Your task to perform on an android device: Open the Play Movies app and select the watchlist tab. Image 0: 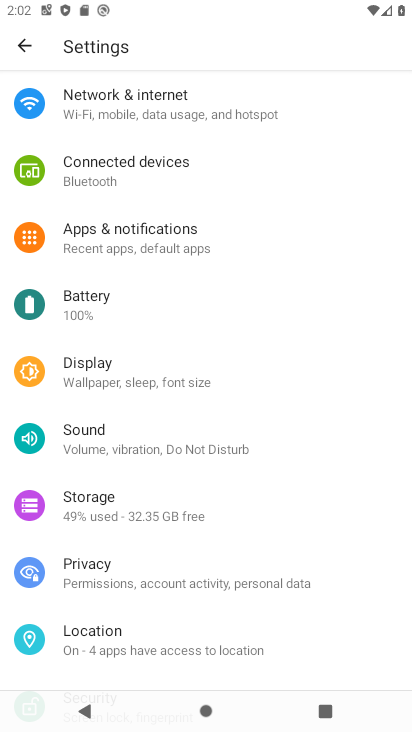
Step 0: press home button
Your task to perform on an android device: Open the Play Movies app and select the watchlist tab. Image 1: 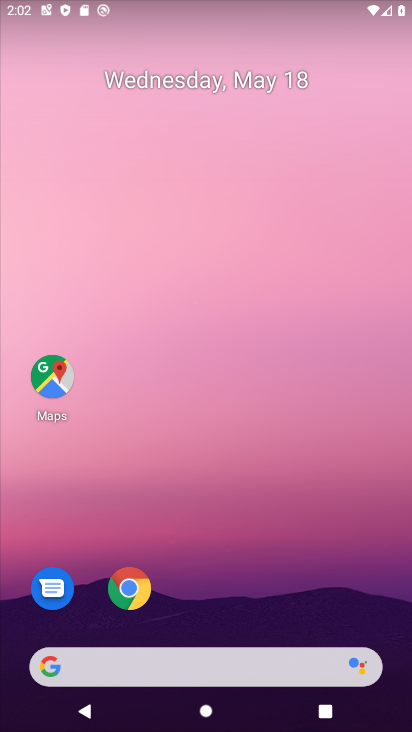
Step 1: drag from (296, 590) to (355, 251)
Your task to perform on an android device: Open the Play Movies app and select the watchlist tab. Image 2: 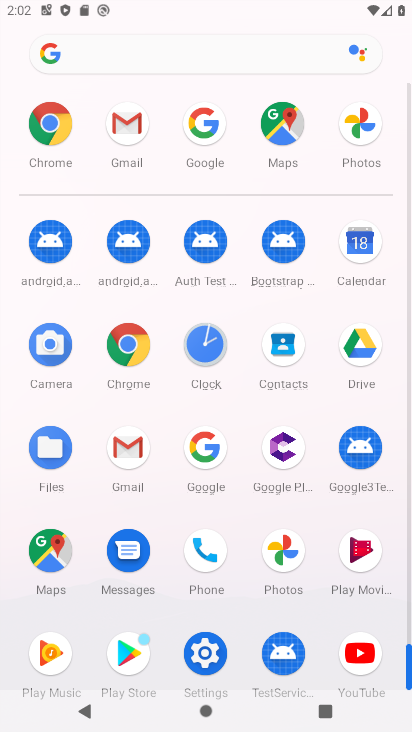
Step 2: click (359, 555)
Your task to perform on an android device: Open the Play Movies app and select the watchlist tab. Image 3: 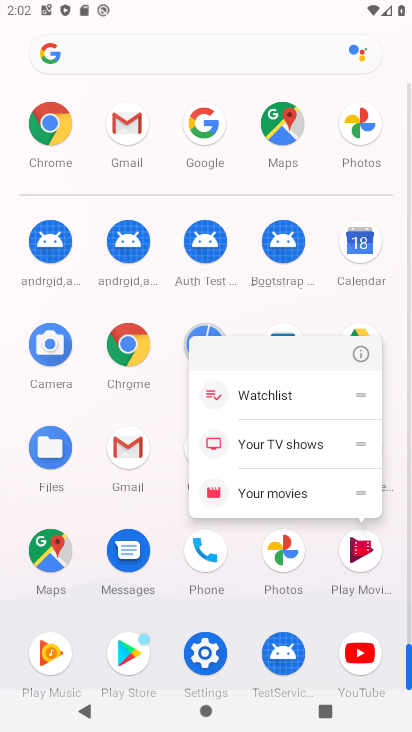
Step 3: click (359, 555)
Your task to perform on an android device: Open the Play Movies app and select the watchlist tab. Image 4: 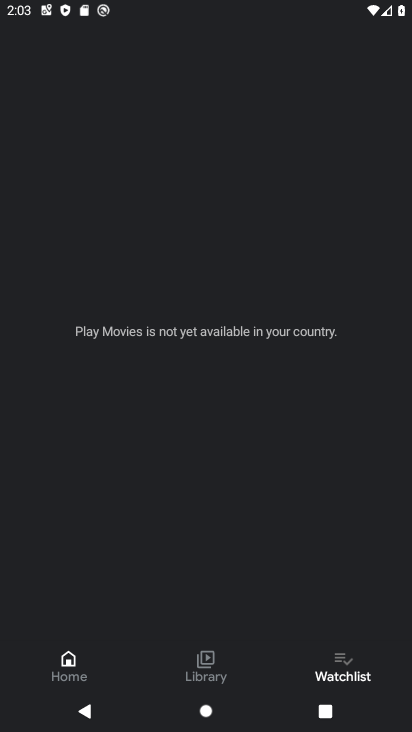
Step 4: task complete